Your task to perform on an android device: Search for "dell xps" on newegg, select the first entry, add it to the cart, then select checkout. Image 0: 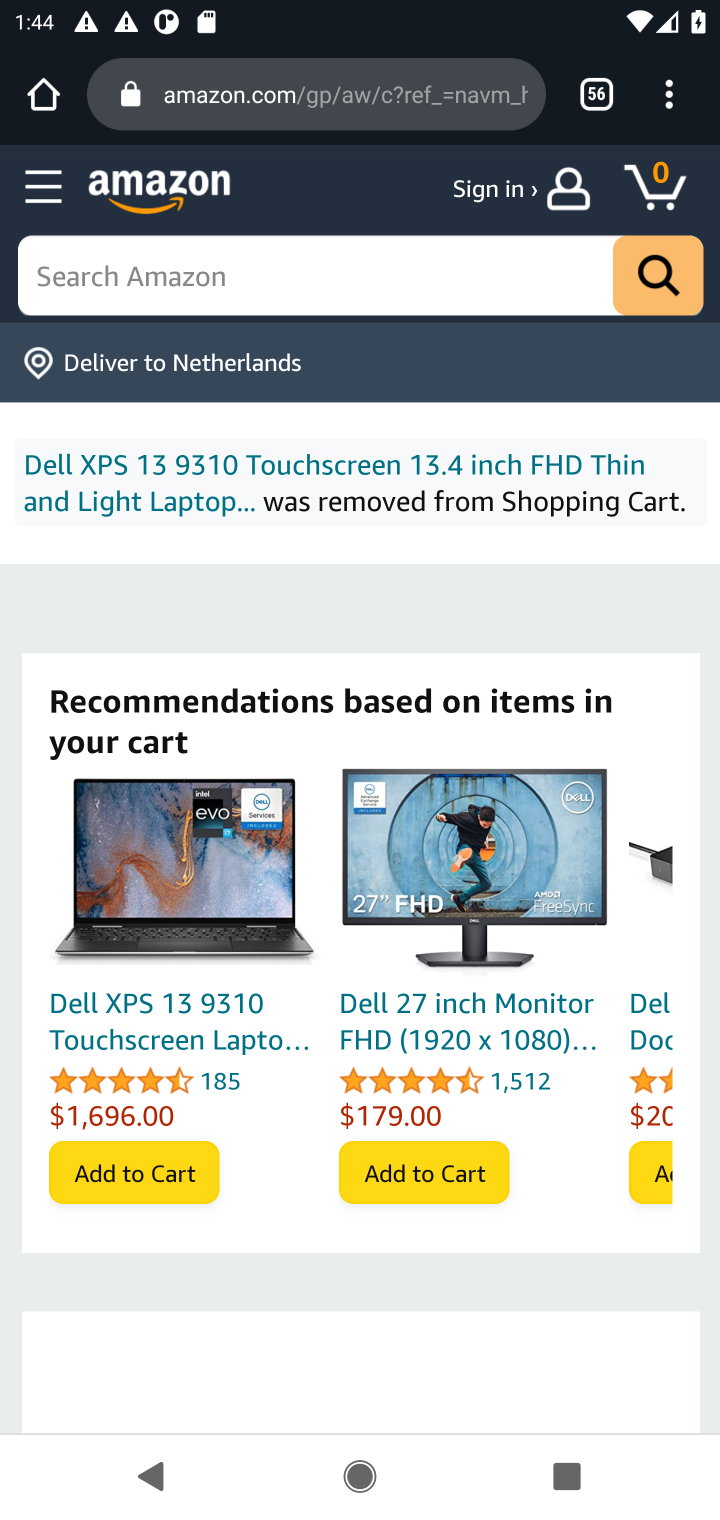
Step 0: click (306, 252)
Your task to perform on an android device: Search for "dell xps" on newegg, select the first entry, add it to the cart, then select checkout. Image 1: 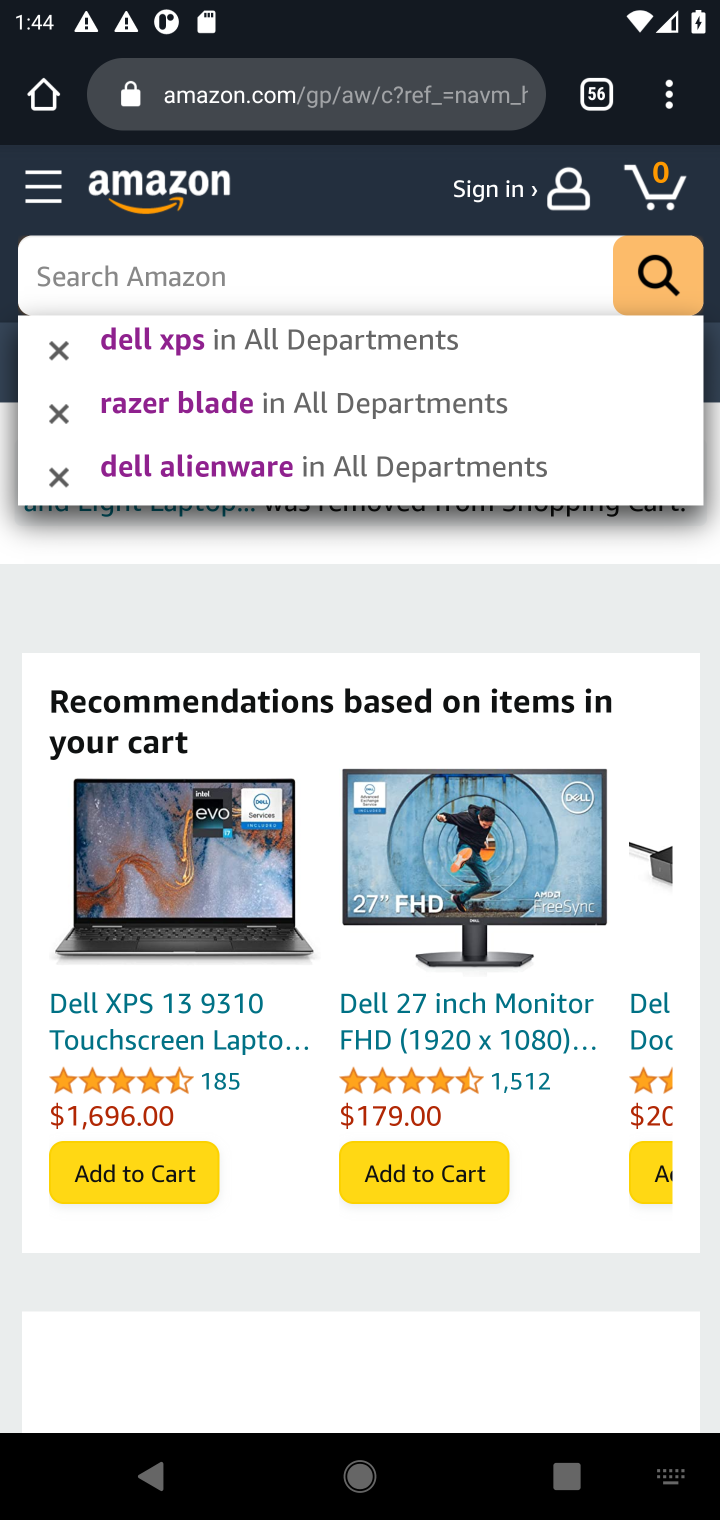
Step 1: type "dell xps"
Your task to perform on an android device: Search for "dell xps" on newegg, select the first entry, add it to the cart, then select checkout. Image 2: 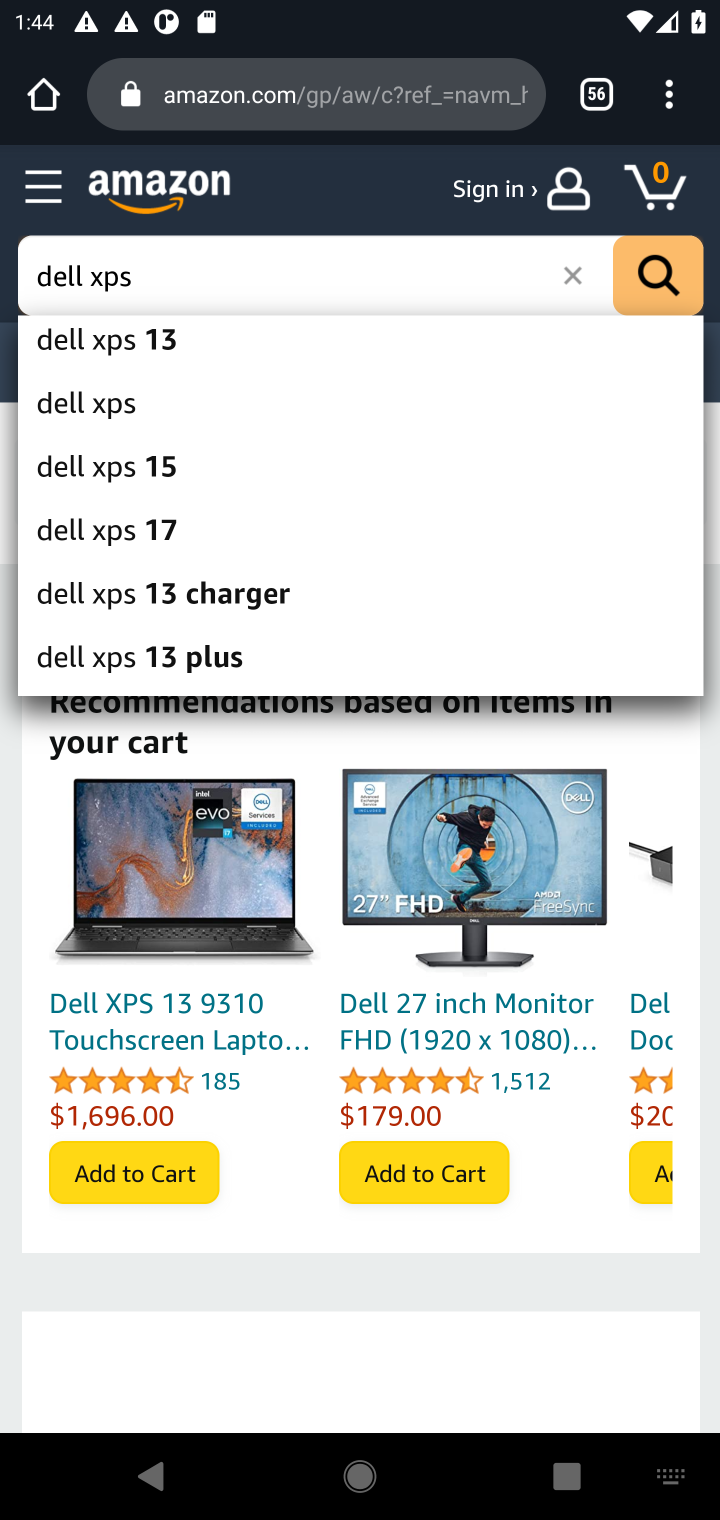
Step 2: click (210, 402)
Your task to perform on an android device: Search for "dell xps" on newegg, select the first entry, add it to the cart, then select checkout. Image 3: 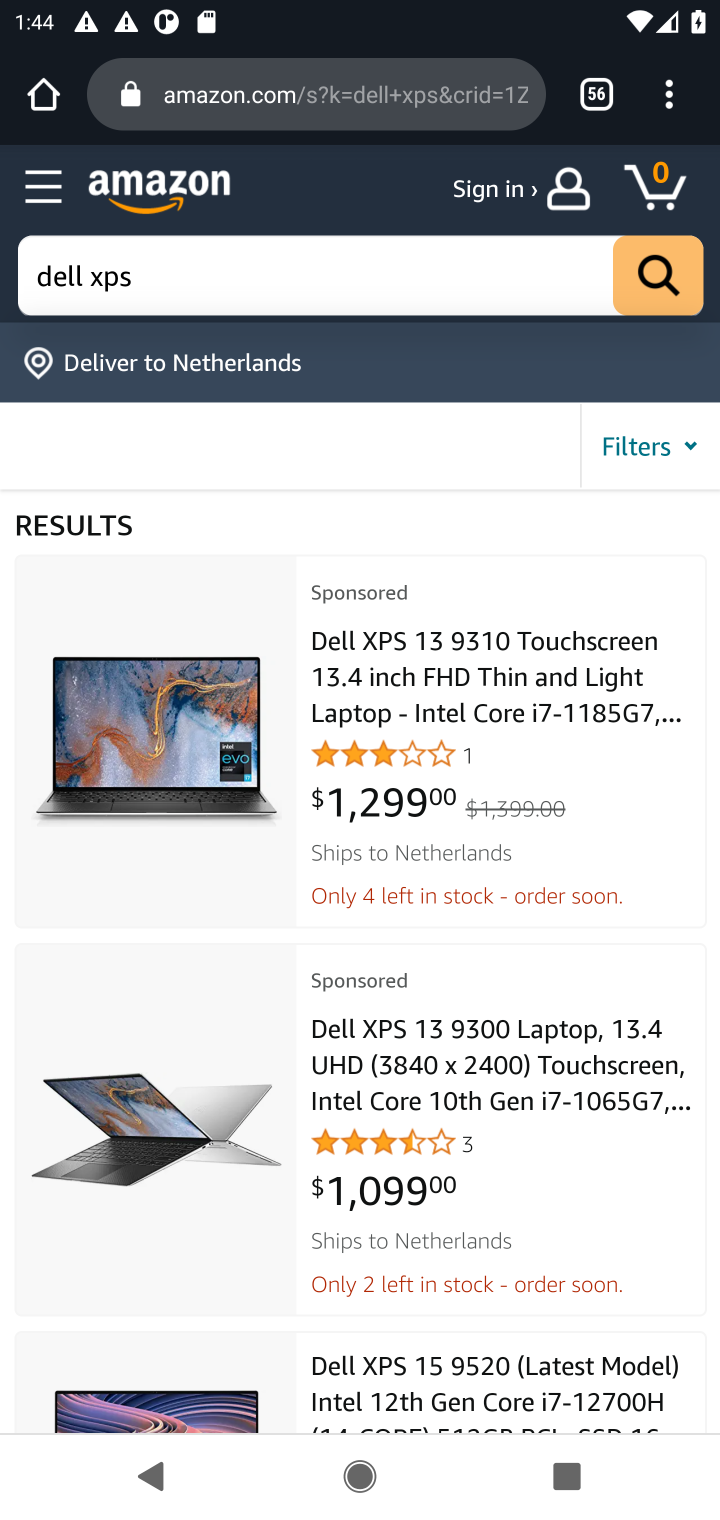
Step 3: click (467, 719)
Your task to perform on an android device: Search for "dell xps" on newegg, select the first entry, add it to the cart, then select checkout. Image 4: 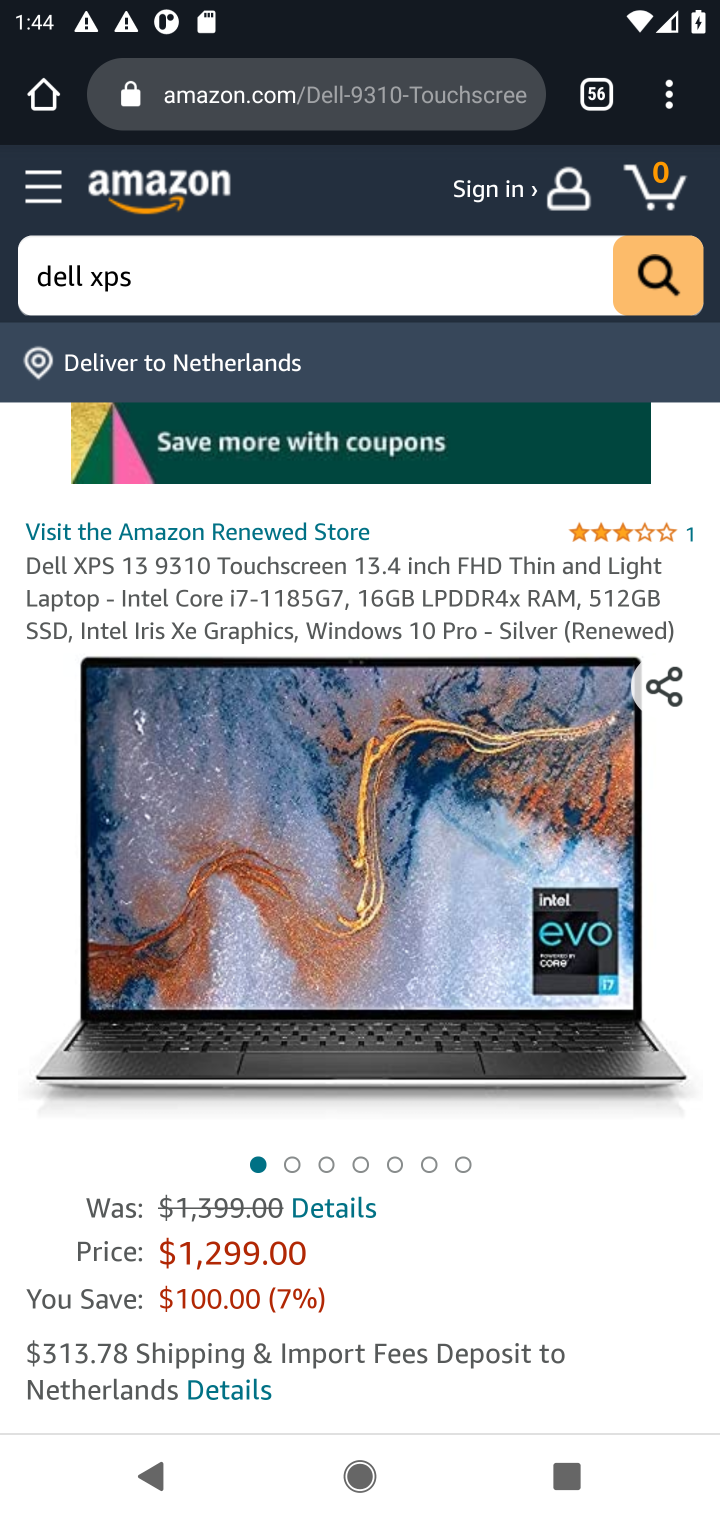
Step 4: drag from (547, 1221) to (549, 690)
Your task to perform on an android device: Search for "dell xps" on newegg, select the first entry, add it to the cart, then select checkout. Image 5: 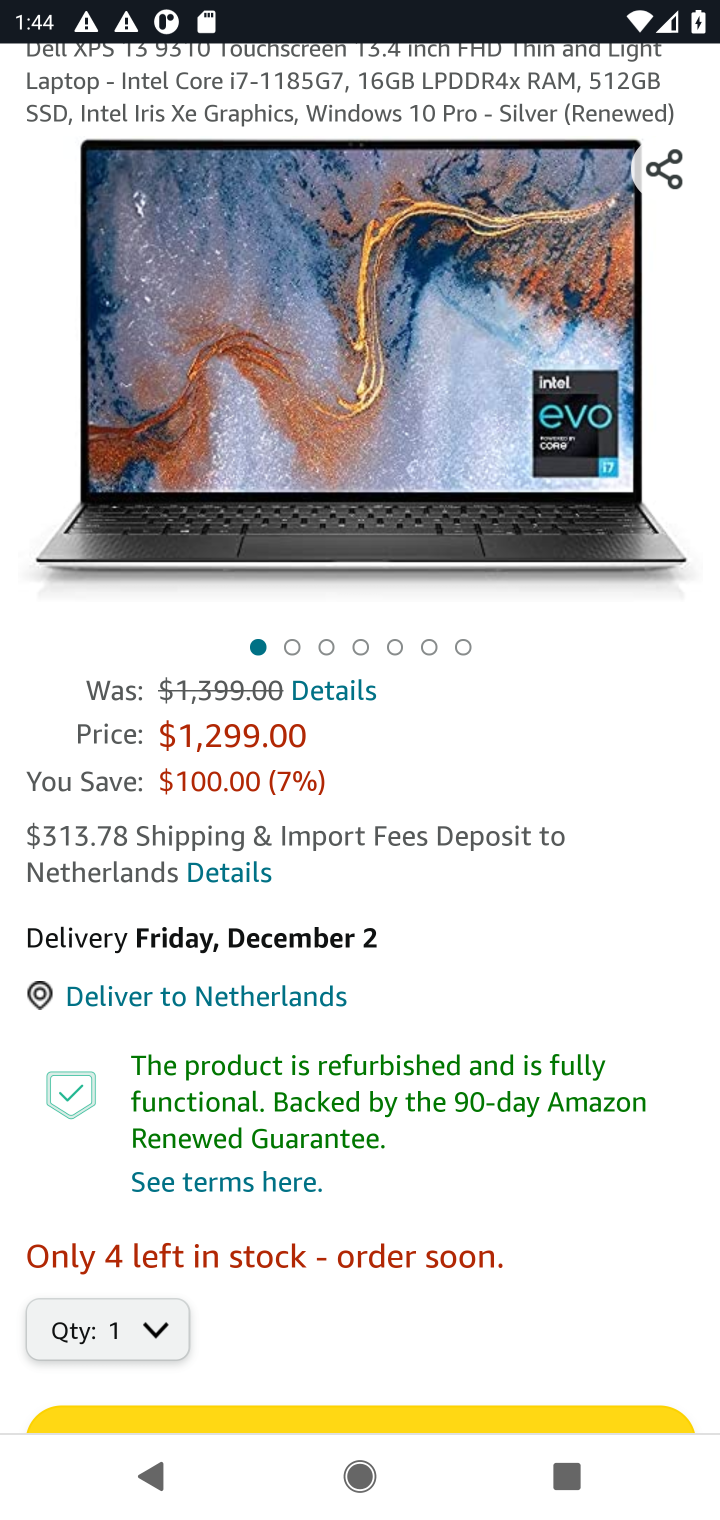
Step 5: drag from (605, 1059) to (612, 716)
Your task to perform on an android device: Search for "dell xps" on newegg, select the first entry, add it to the cart, then select checkout. Image 6: 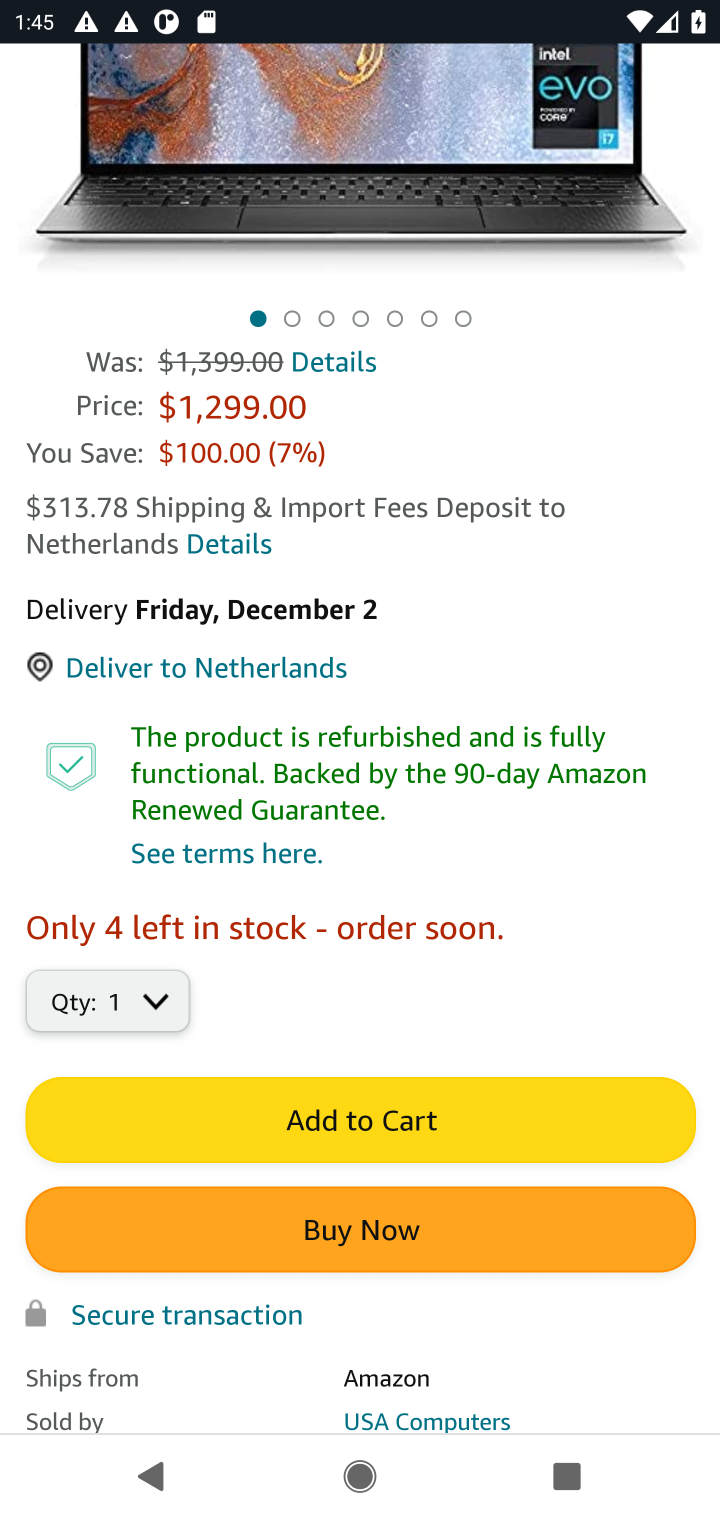
Step 6: click (450, 1119)
Your task to perform on an android device: Search for "dell xps" on newegg, select the first entry, add it to the cart, then select checkout. Image 7: 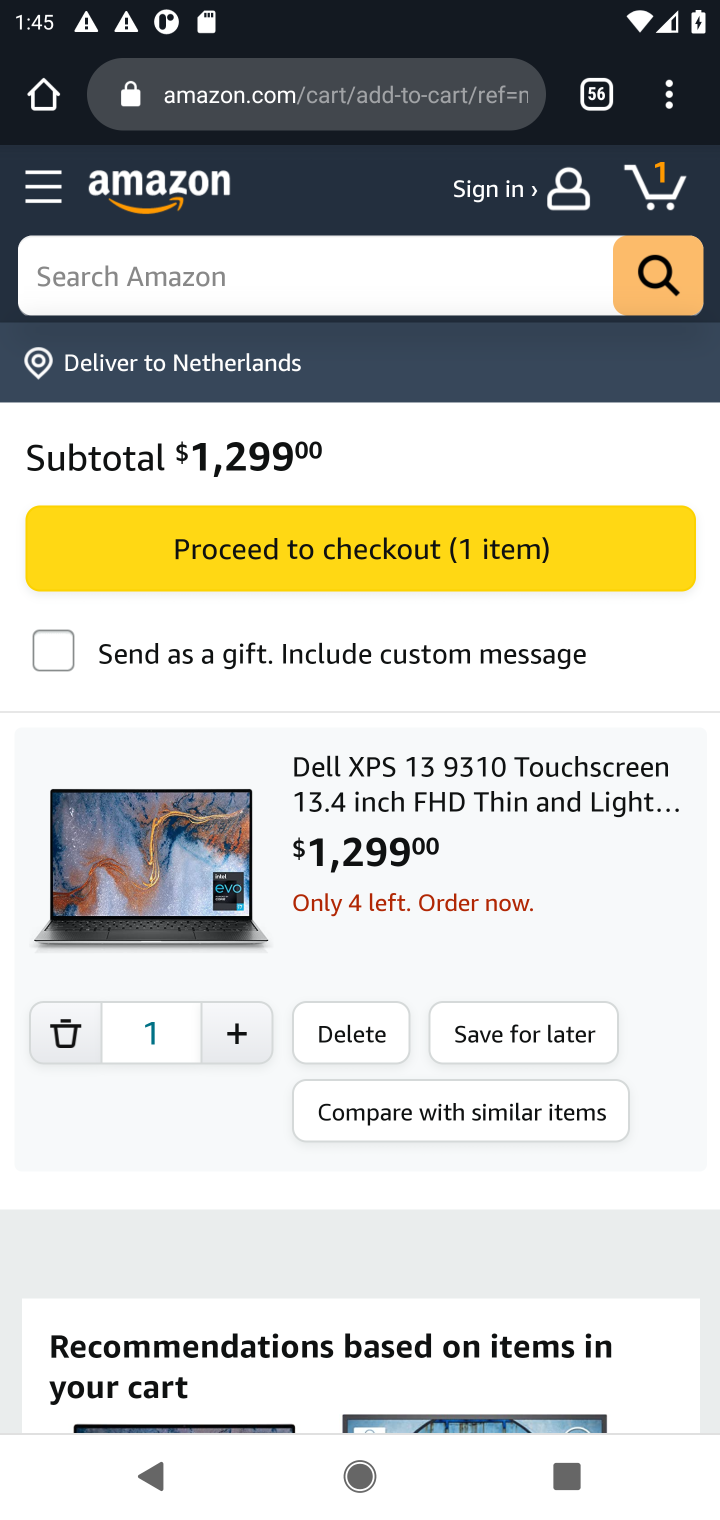
Step 7: click (296, 571)
Your task to perform on an android device: Search for "dell xps" on newegg, select the first entry, add it to the cart, then select checkout. Image 8: 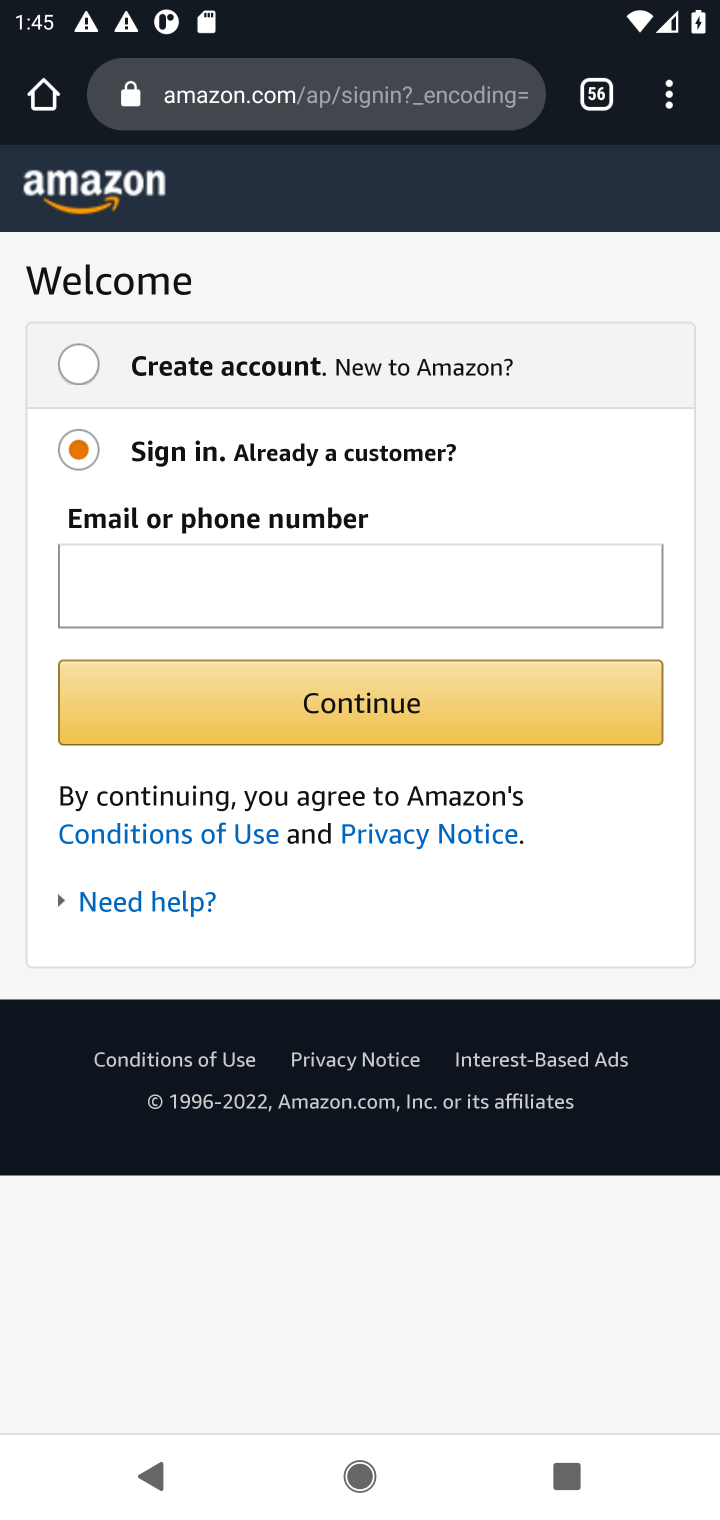
Step 8: task complete